Your task to perform on an android device: turn off improve location accuracy Image 0: 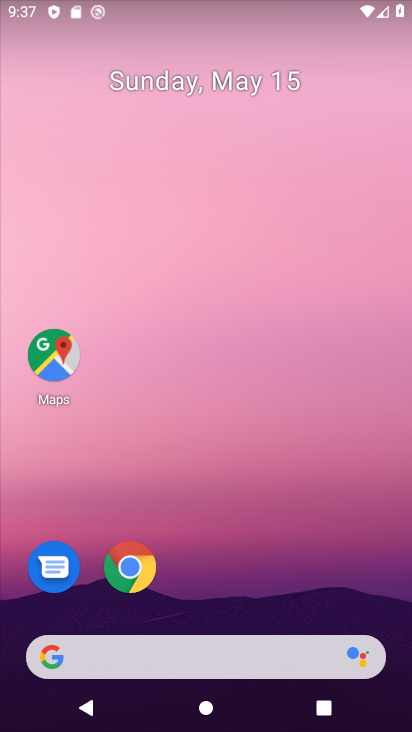
Step 0: drag from (239, 576) to (246, 47)
Your task to perform on an android device: turn off improve location accuracy Image 1: 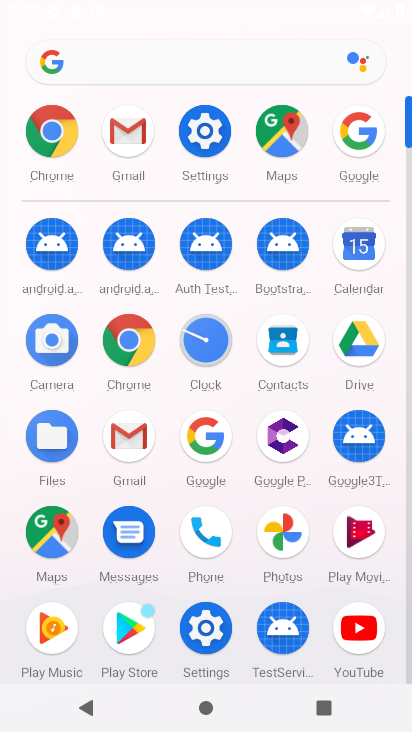
Step 1: click (206, 632)
Your task to perform on an android device: turn off improve location accuracy Image 2: 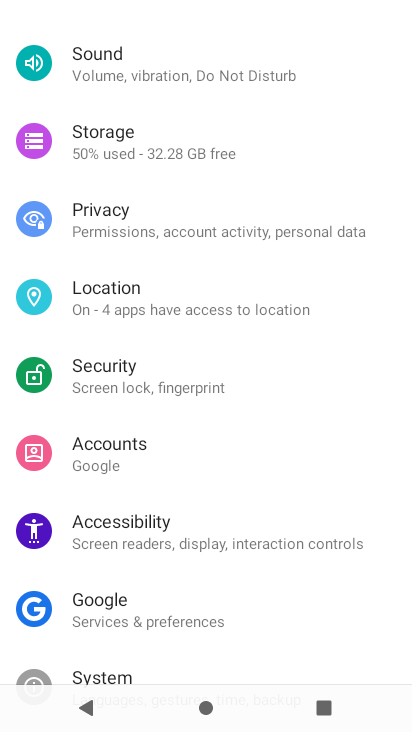
Step 2: click (130, 288)
Your task to perform on an android device: turn off improve location accuracy Image 3: 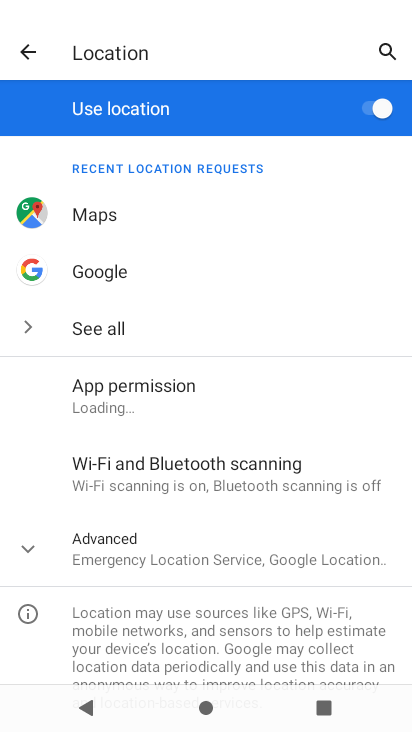
Step 3: click (165, 400)
Your task to perform on an android device: turn off improve location accuracy Image 4: 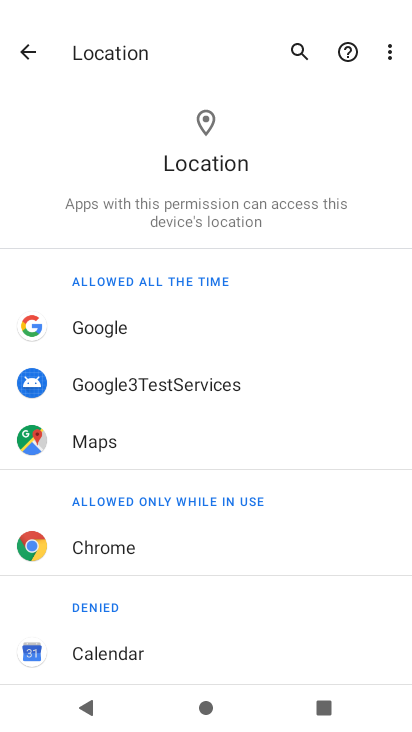
Step 4: drag from (225, 541) to (287, 586)
Your task to perform on an android device: turn off improve location accuracy Image 5: 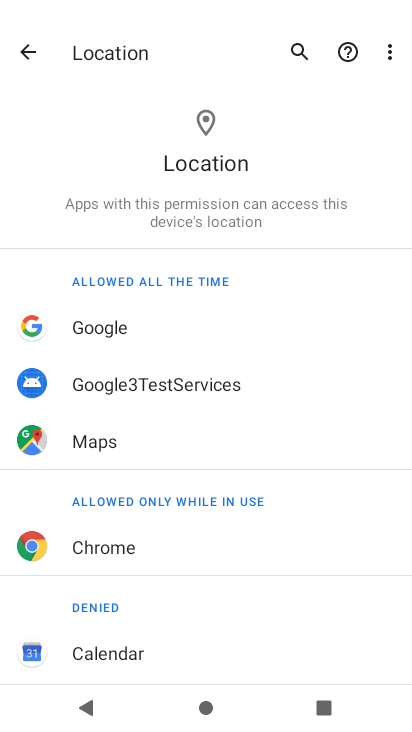
Step 5: press back button
Your task to perform on an android device: turn off improve location accuracy Image 6: 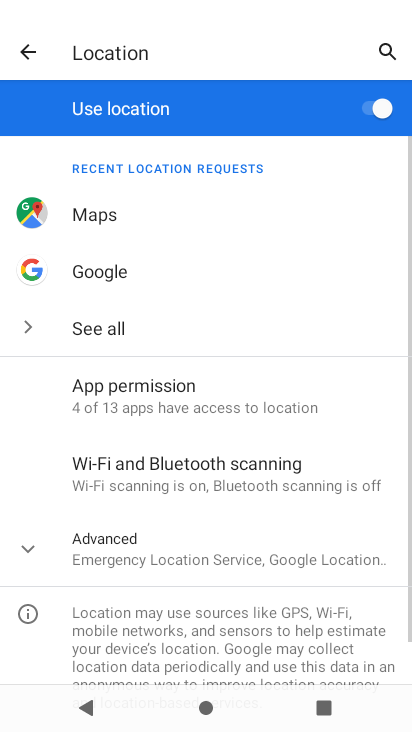
Step 6: click (150, 535)
Your task to perform on an android device: turn off improve location accuracy Image 7: 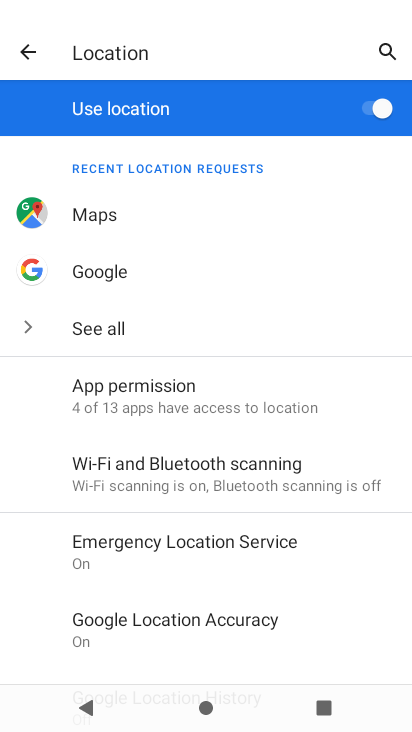
Step 7: click (186, 627)
Your task to perform on an android device: turn off improve location accuracy Image 8: 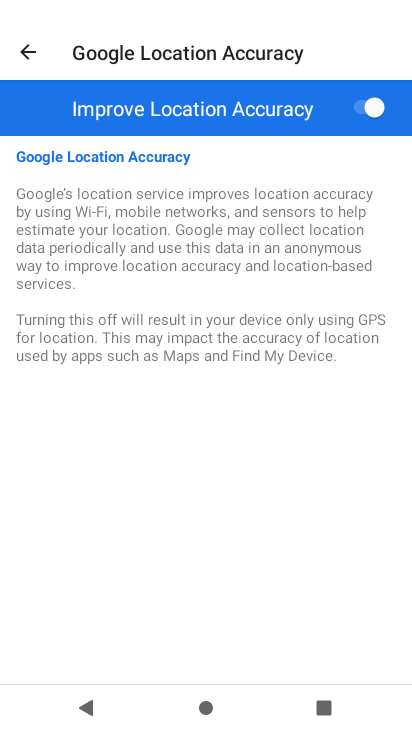
Step 8: click (373, 100)
Your task to perform on an android device: turn off improve location accuracy Image 9: 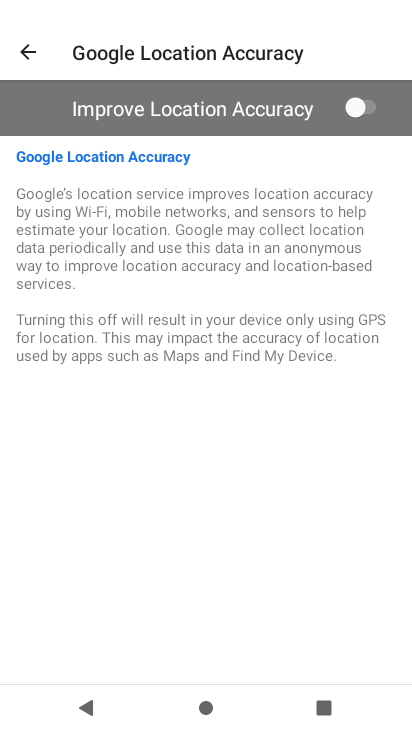
Step 9: task complete